Your task to perform on an android device: Go to internet settings Image 0: 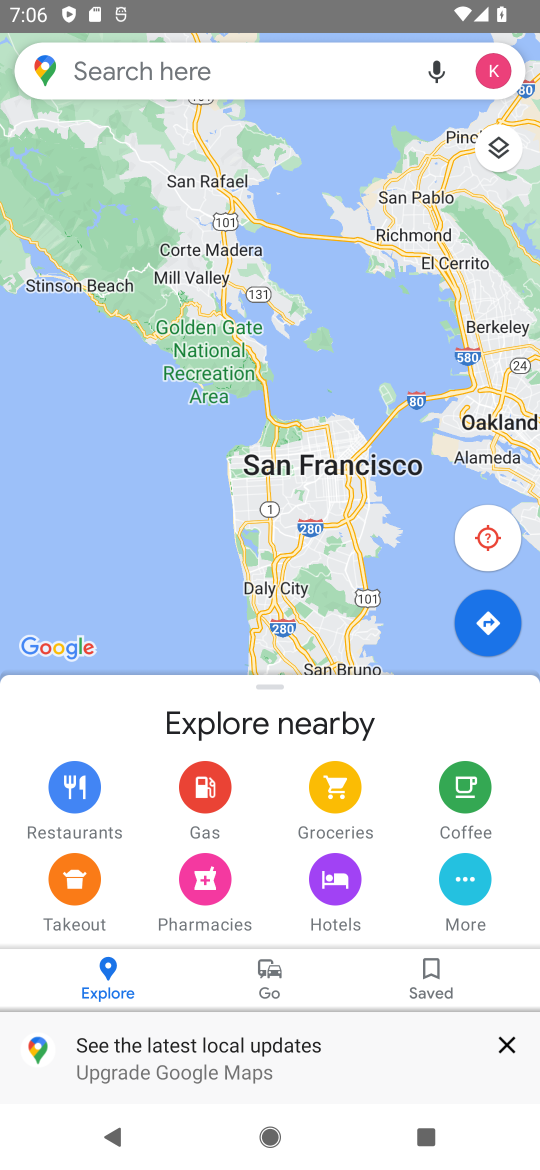
Step 0: press home button
Your task to perform on an android device: Go to internet settings Image 1: 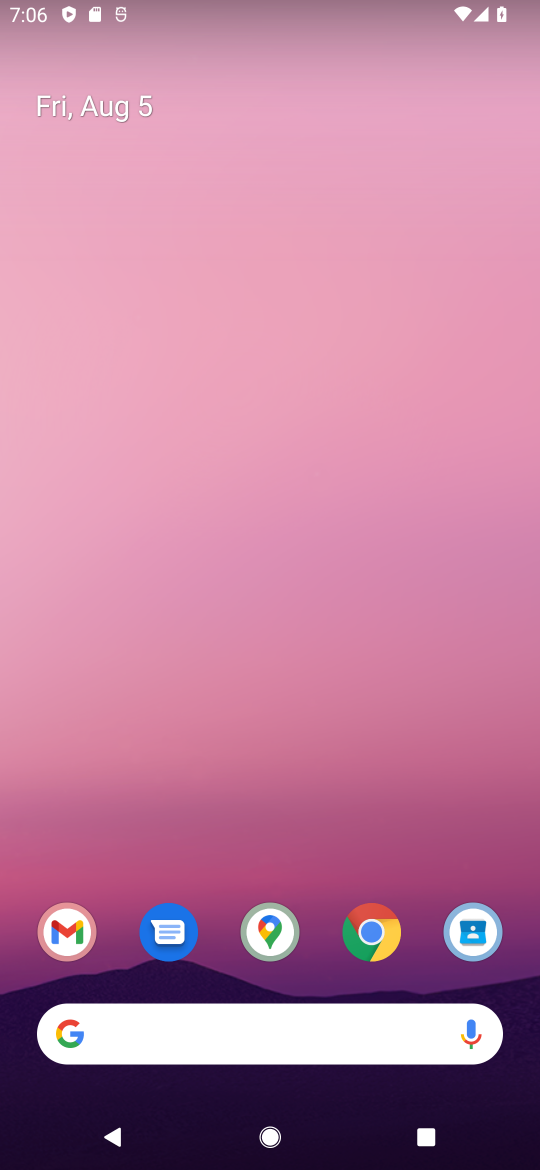
Step 1: drag from (403, 769) to (341, 0)
Your task to perform on an android device: Go to internet settings Image 2: 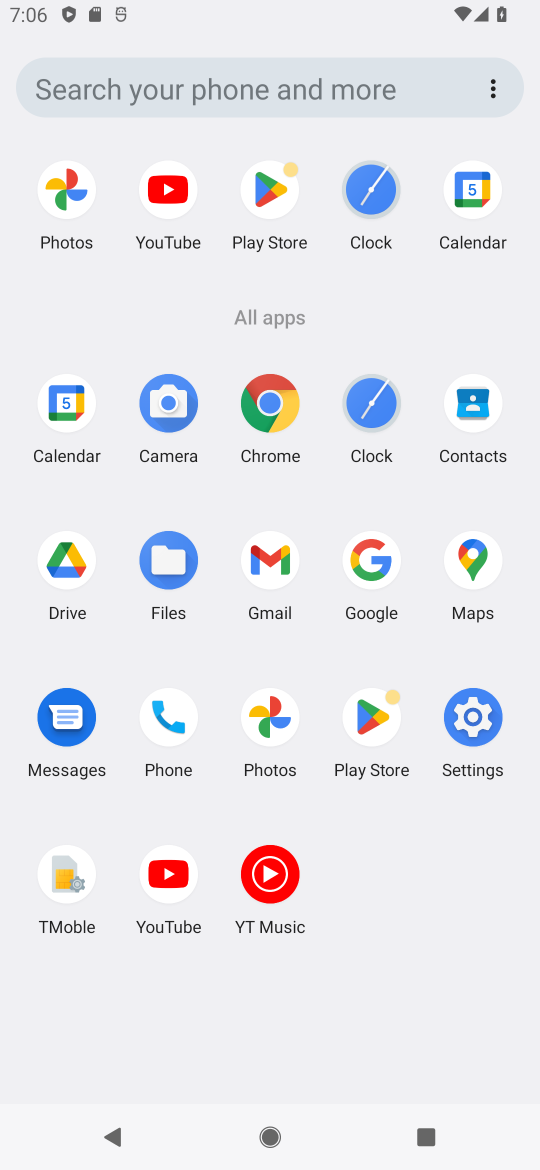
Step 2: click (493, 710)
Your task to perform on an android device: Go to internet settings Image 3: 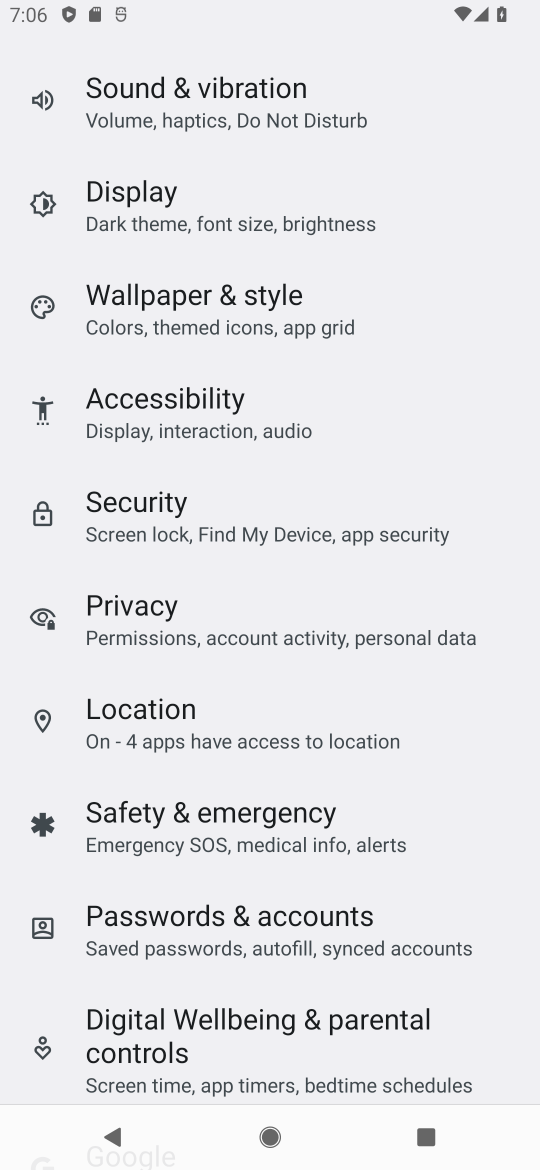
Step 3: drag from (292, 169) to (279, 699)
Your task to perform on an android device: Go to internet settings Image 4: 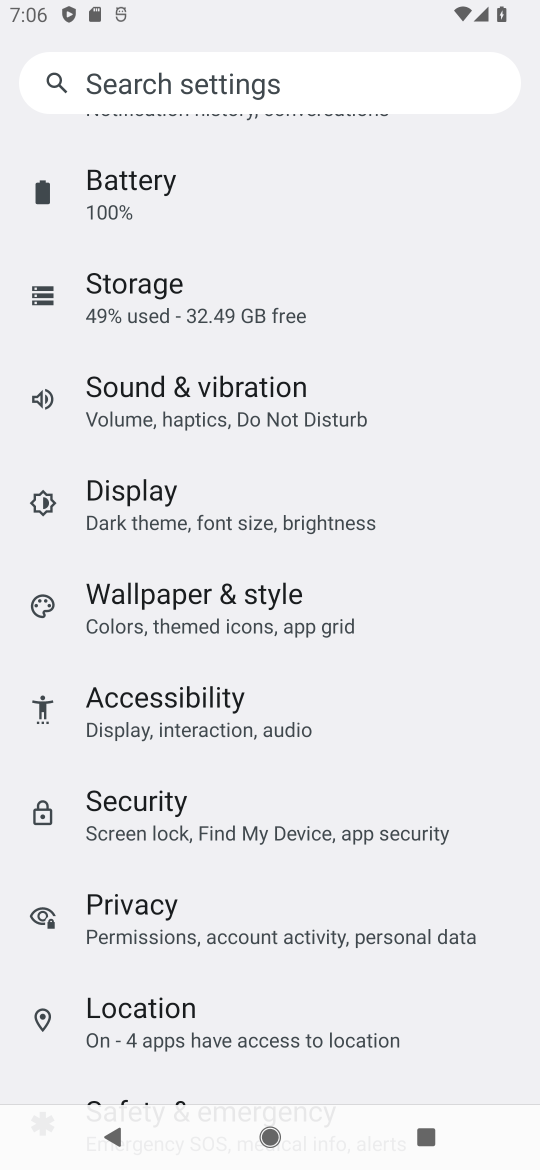
Step 4: drag from (278, 246) to (262, 915)
Your task to perform on an android device: Go to internet settings Image 5: 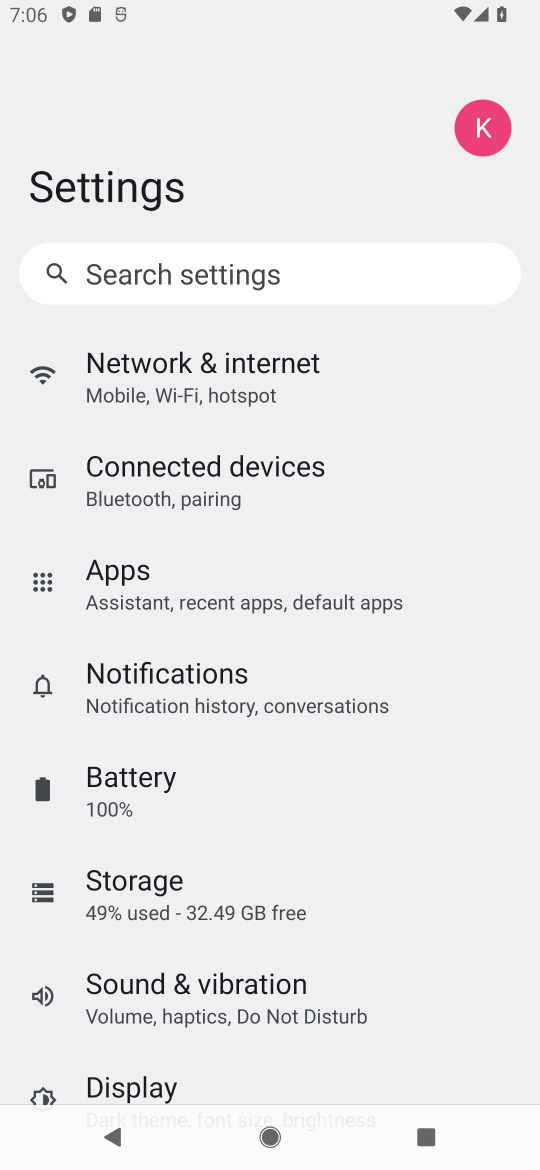
Step 5: click (273, 357)
Your task to perform on an android device: Go to internet settings Image 6: 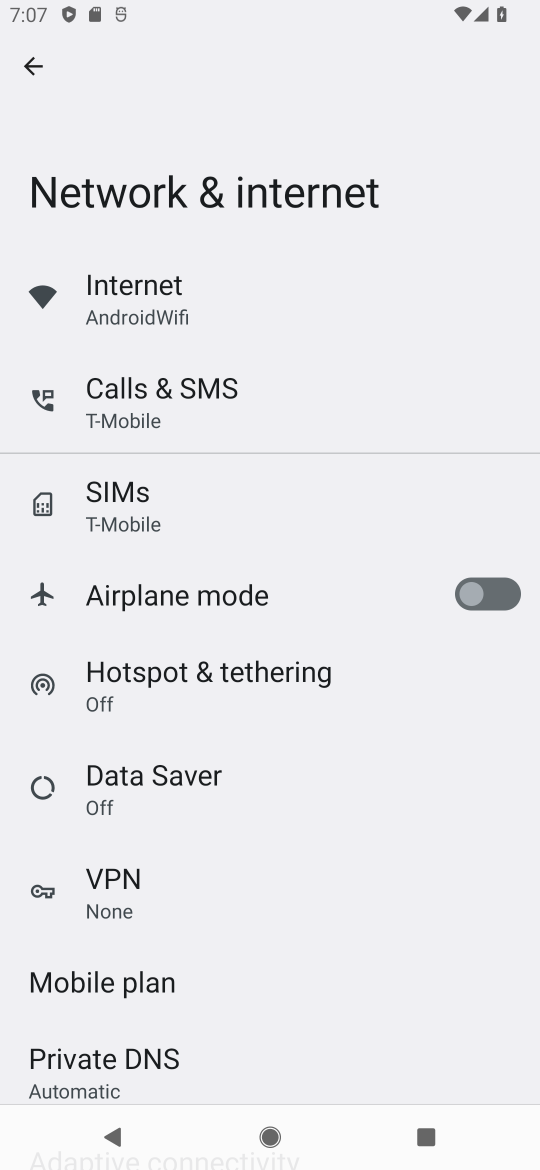
Step 6: click (189, 310)
Your task to perform on an android device: Go to internet settings Image 7: 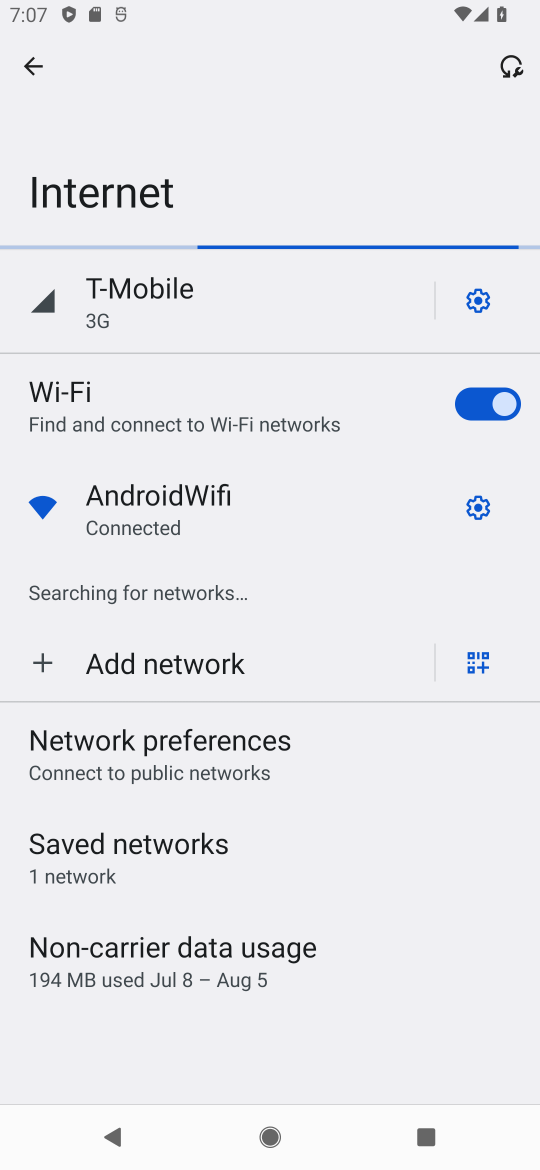
Step 7: task complete